Your task to perform on an android device: Open internet settings Image 0: 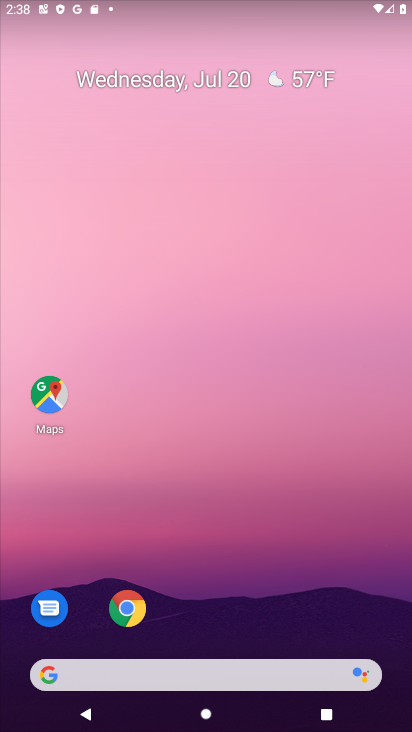
Step 0: drag from (189, 626) to (189, 163)
Your task to perform on an android device: Open internet settings Image 1: 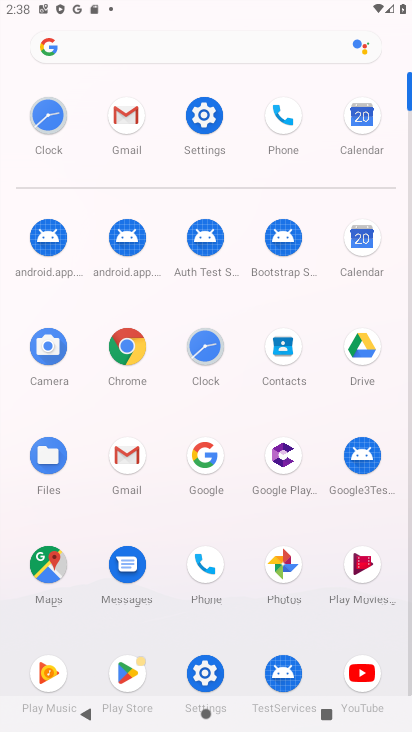
Step 1: click (198, 116)
Your task to perform on an android device: Open internet settings Image 2: 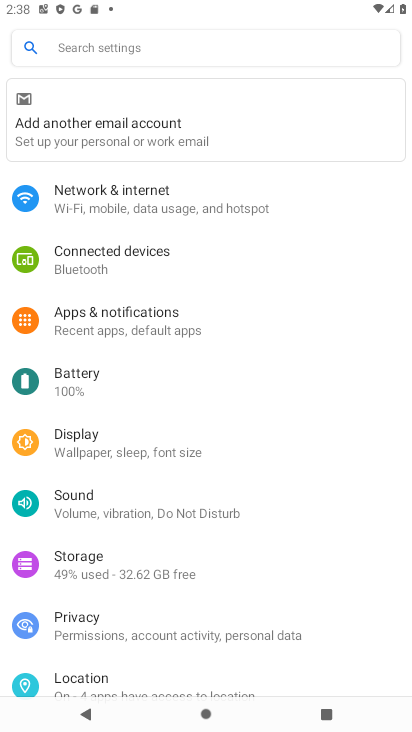
Step 2: click (126, 189)
Your task to perform on an android device: Open internet settings Image 3: 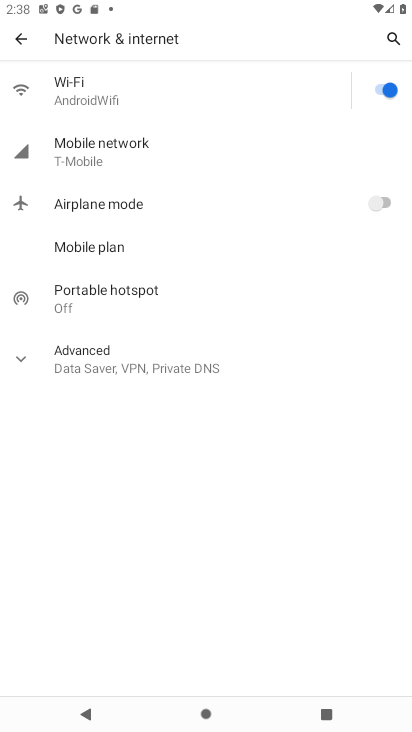
Step 3: task complete